Your task to perform on an android device: turn on airplane mode Image 0: 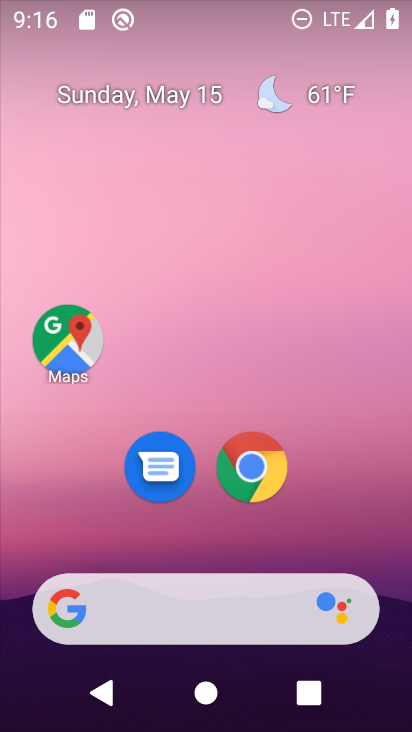
Step 0: drag from (174, 20) to (236, 683)
Your task to perform on an android device: turn on airplane mode Image 1: 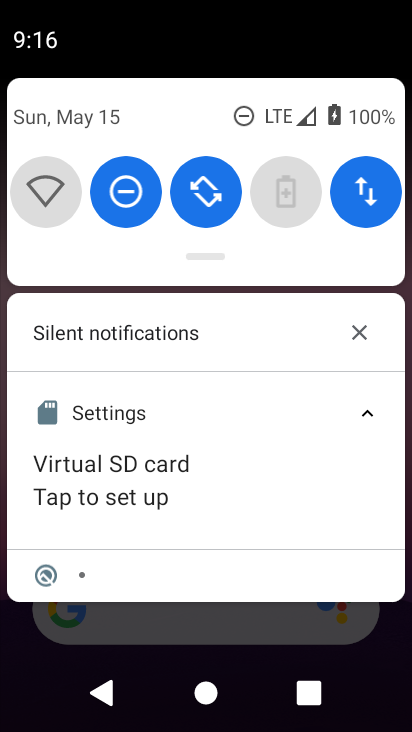
Step 1: drag from (226, 124) to (262, 613)
Your task to perform on an android device: turn on airplane mode Image 2: 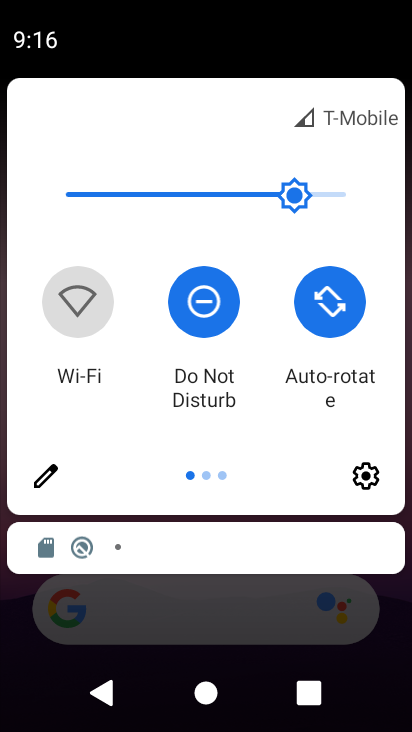
Step 2: drag from (361, 435) to (40, 425)
Your task to perform on an android device: turn on airplane mode Image 3: 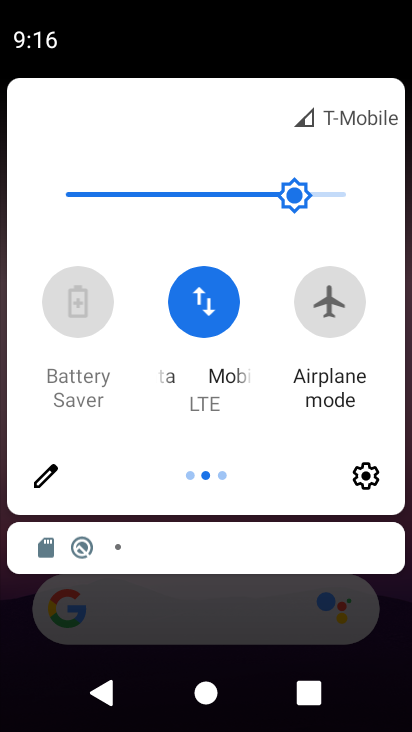
Step 3: click (342, 305)
Your task to perform on an android device: turn on airplane mode Image 4: 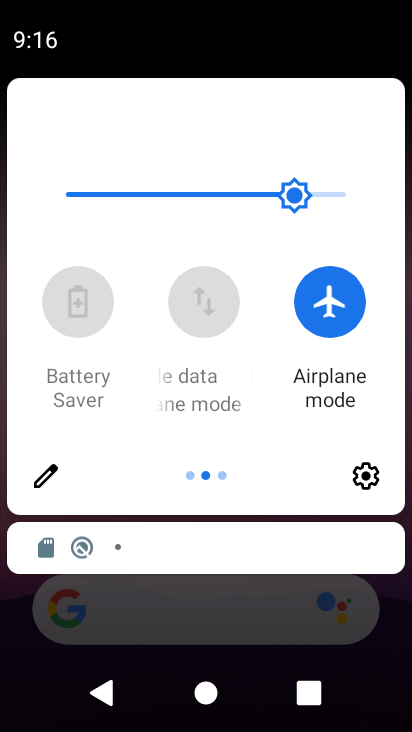
Step 4: task complete